Your task to perform on an android device: See recent photos Image 0: 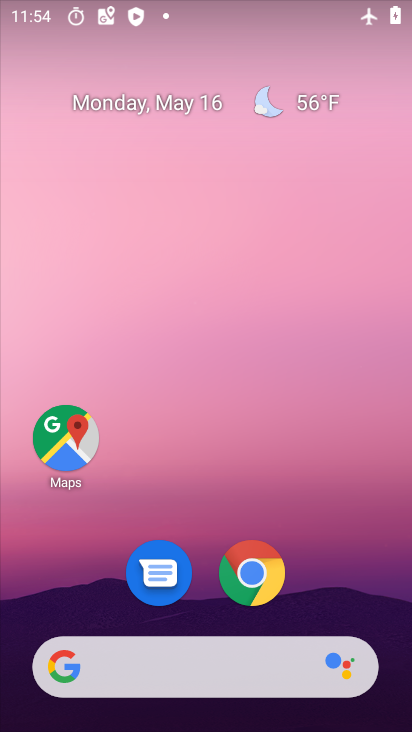
Step 0: click (189, 0)
Your task to perform on an android device: See recent photos Image 1: 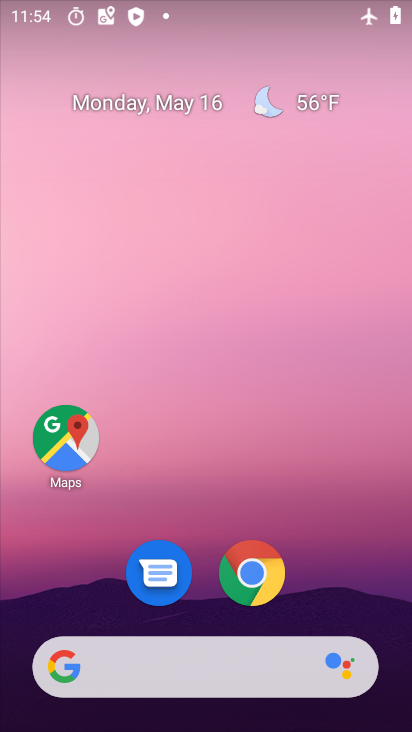
Step 1: drag from (229, 672) to (171, 23)
Your task to perform on an android device: See recent photos Image 2: 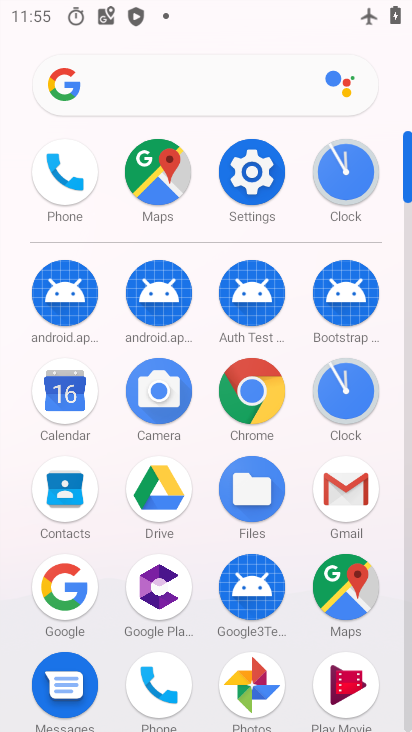
Step 2: click (238, 678)
Your task to perform on an android device: See recent photos Image 3: 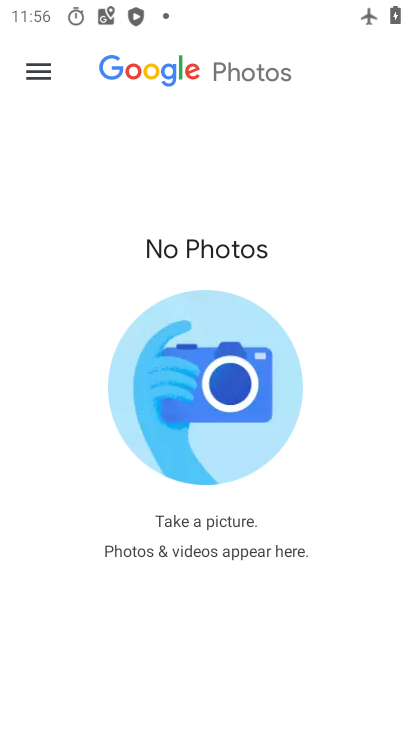
Step 3: task complete